Your task to perform on an android device: Do I have any events today? Image 0: 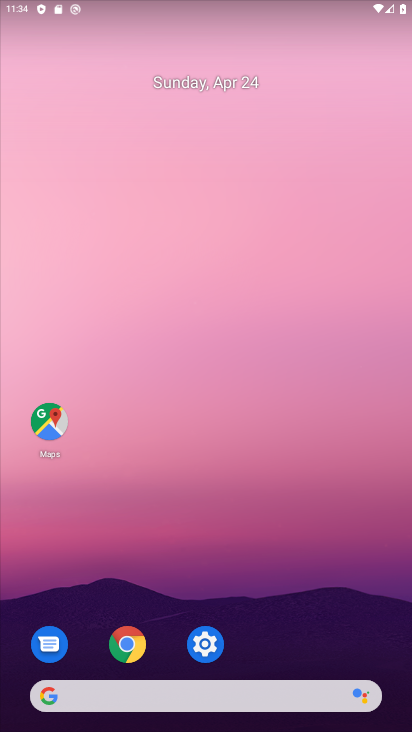
Step 0: drag from (299, 713) to (130, 154)
Your task to perform on an android device: Do I have any events today? Image 1: 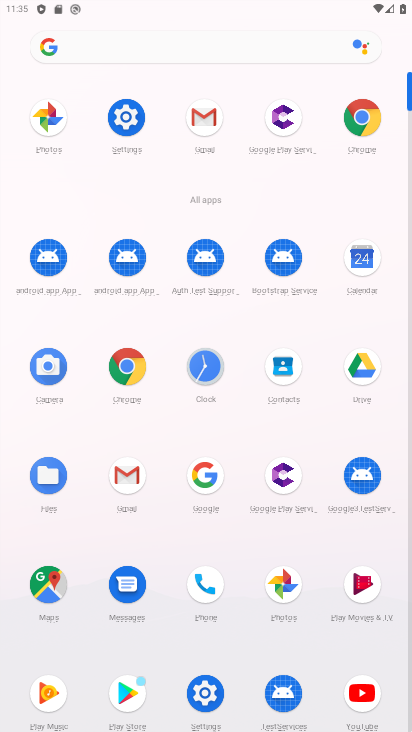
Step 1: click (362, 252)
Your task to perform on an android device: Do I have any events today? Image 2: 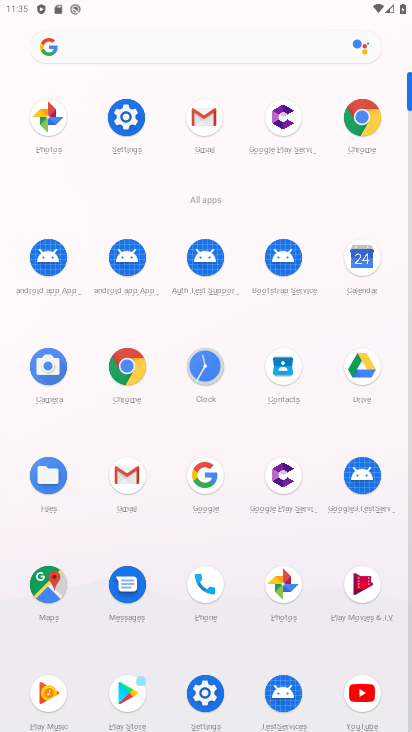
Step 2: click (362, 252)
Your task to perform on an android device: Do I have any events today? Image 3: 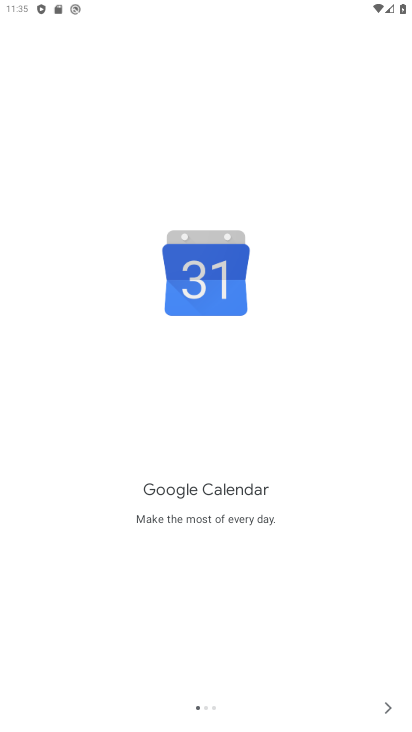
Step 3: click (388, 705)
Your task to perform on an android device: Do I have any events today? Image 4: 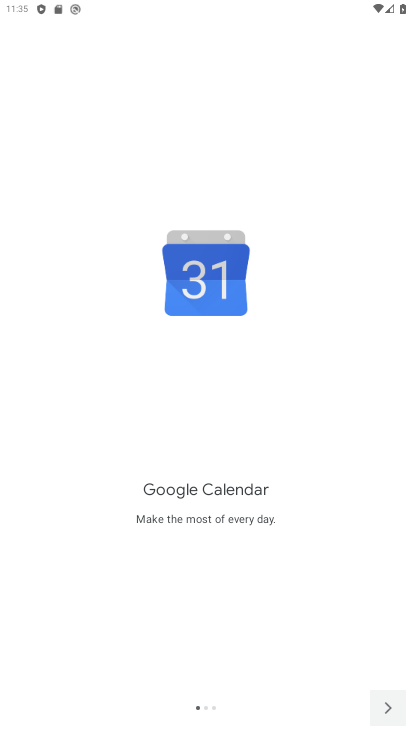
Step 4: click (389, 705)
Your task to perform on an android device: Do I have any events today? Image 5: 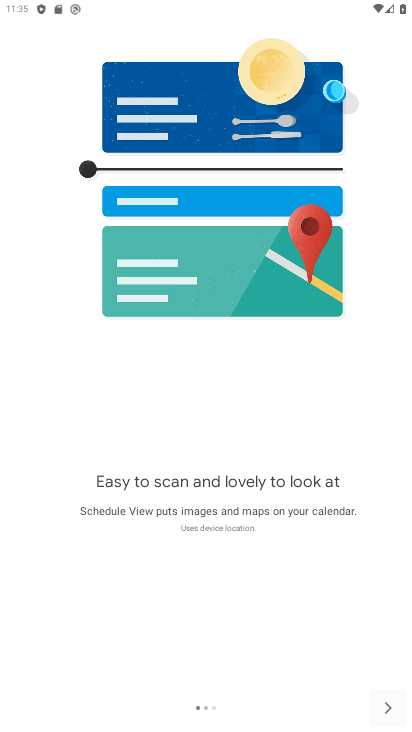
Step 5: click (389, 705)
Your task to perform on an android device: Do I have any events today? Image 6: 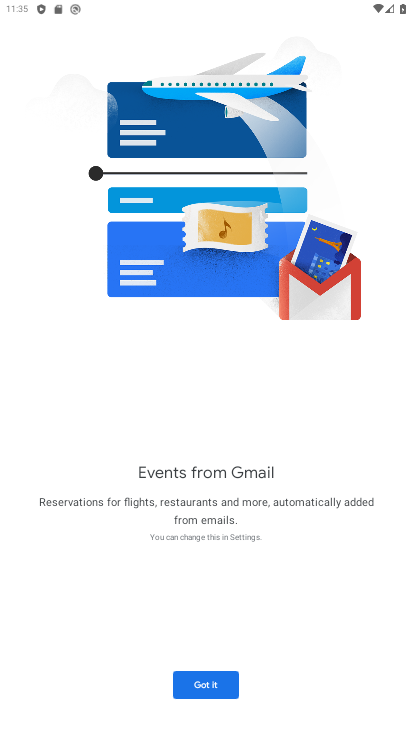
Step 6: click (200, 680)
Your task to perform on an android device: Do I have any events today? Image 7: 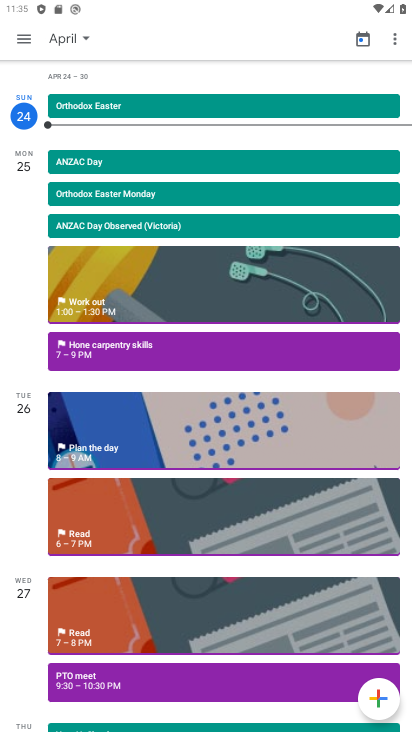
Step 7: drag from (25, 42) to (32, 359)
Your task to perform on an android device: Do I have any events today? Image 8: 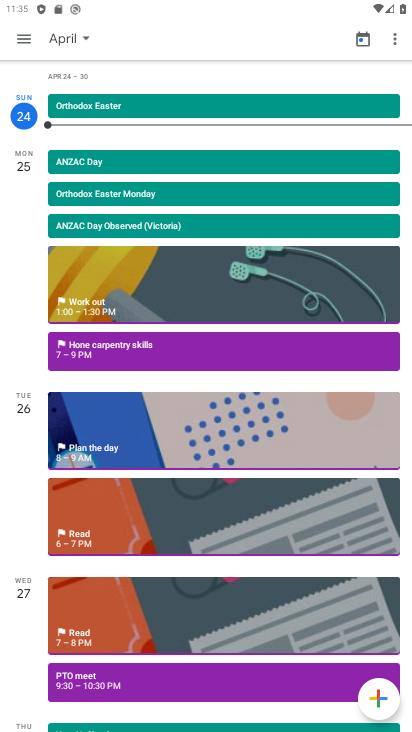
Step 8: drag from (21, 41) to (43, 407)
Your task to perform on an android device: Do I have any events today? Image 9: 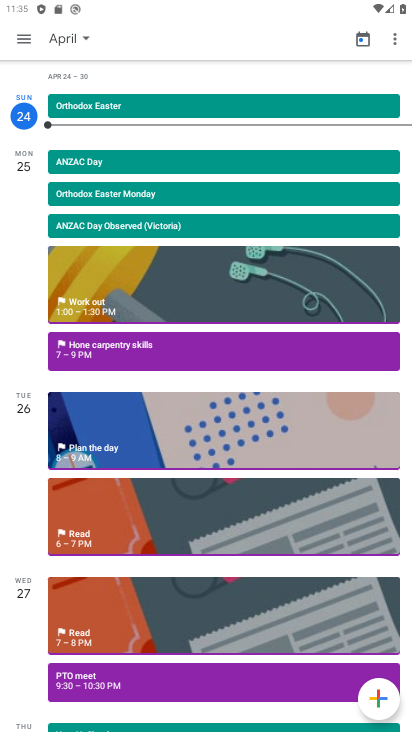
Step 9: drag from (179, 474) to (156, 1)
Your task to perform on an android device: Do I have any events today? Image 10: 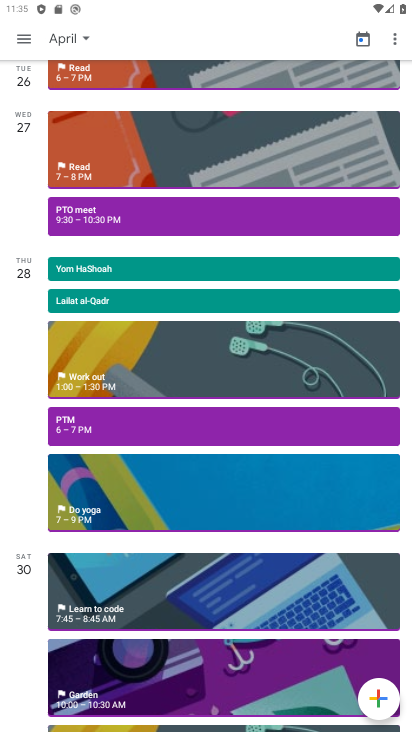
Step 10: drag from (110, 317) to (193, 693)
Your task to perform on an android device: Do I have any events today? Image 11: 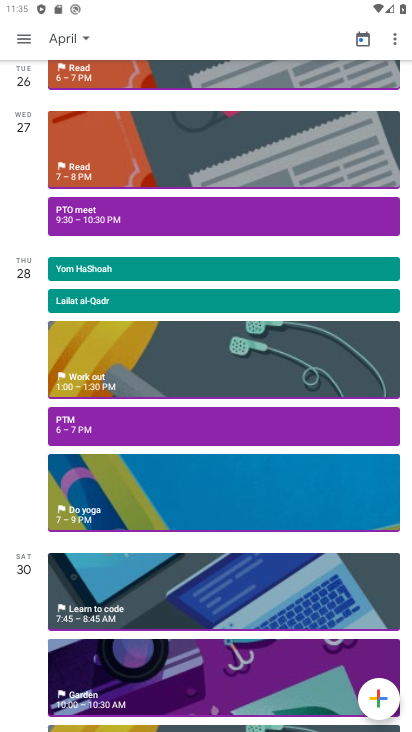
Step 11: drag from (114, 259) to (204, 641)
Your task to perform on an android device: Do I have any events today? Image 12: 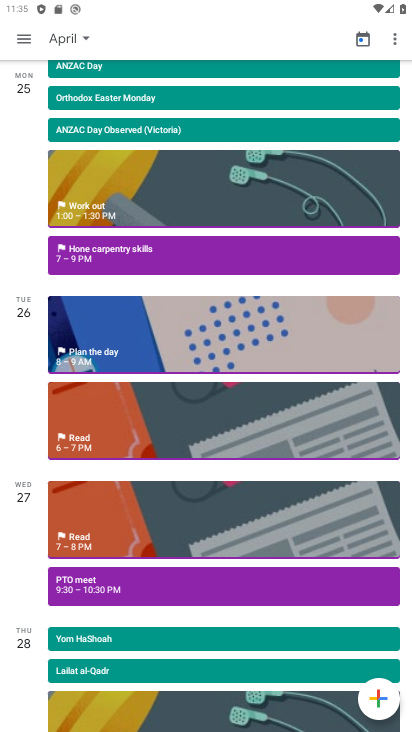
Step 12: click (139, 96)
Your task to perform on an android device: Do I have any events today? Image 13: 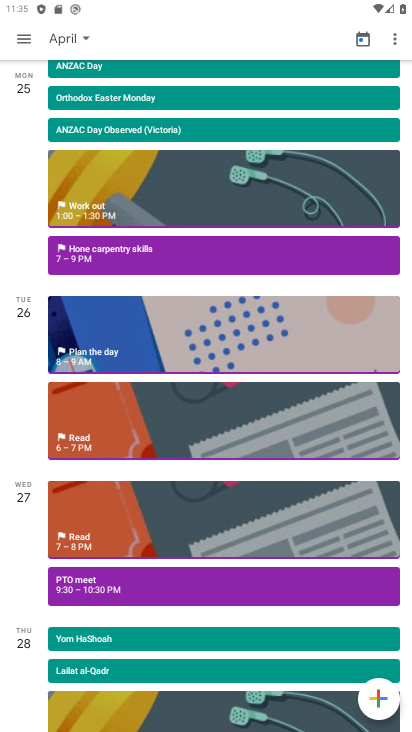
Step 13: click (139, 96)
Your task to perform on an android device: Do I have any events today? Image 14: 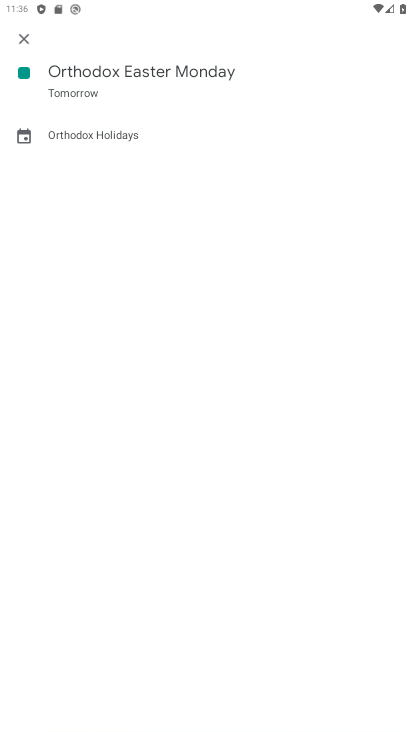
Step 14: click (26, 35)
Your task to perform on an android device: Do I have any events today? Image 15: 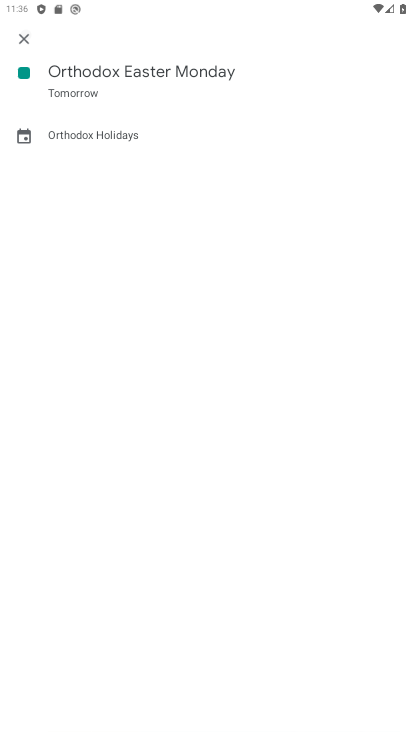
Step 15: click (26, 35)
Your task to perform on an android device: Do I have any events today? Image 16: 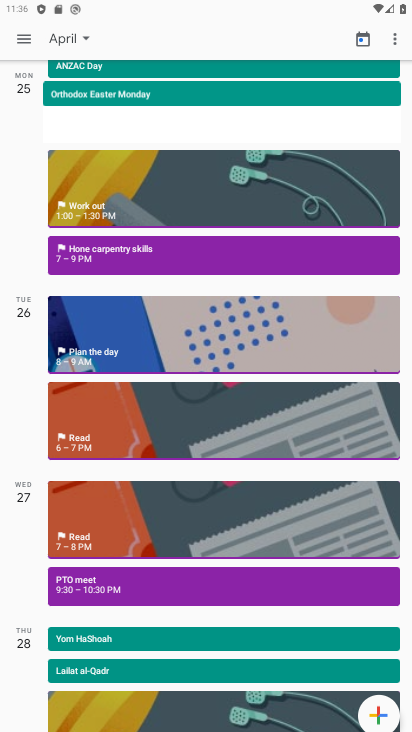
Step 16: click (26, 35)
Your task to perform on an android device: Do I have any events today? Image 17: 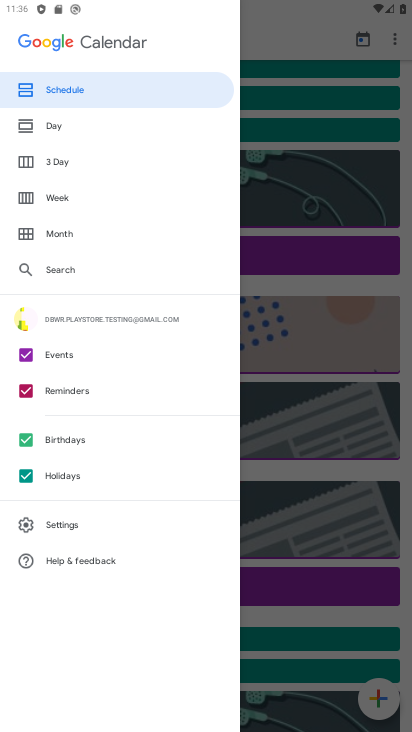
Step 17: task complete